Your task to perform on an android device: Open sound settings Image 0: 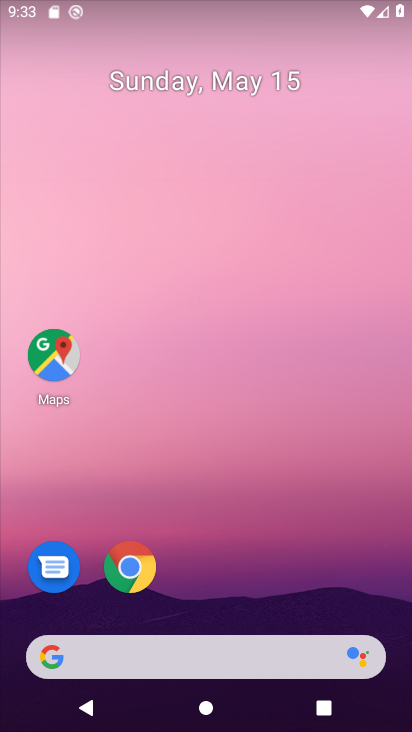
Step 0: drag from (234, 490) to (223, 38)
Your task to perform on an android device: Open sound settings Image 1: 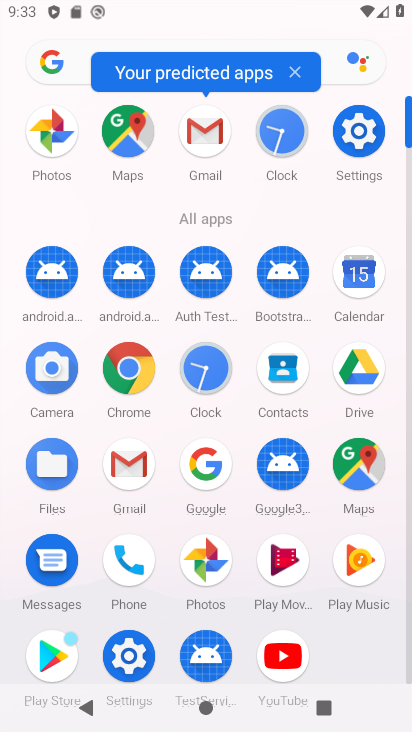
Step 1: click (365, 135)
Your task to perform on an android device: Open sound settings Image 2: 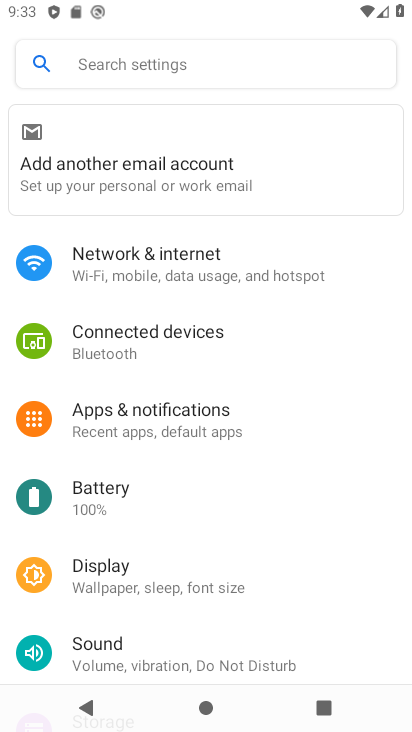
Step 2: click (127, 655)
Your task to perform on an android device: Open sound settings Image 3: 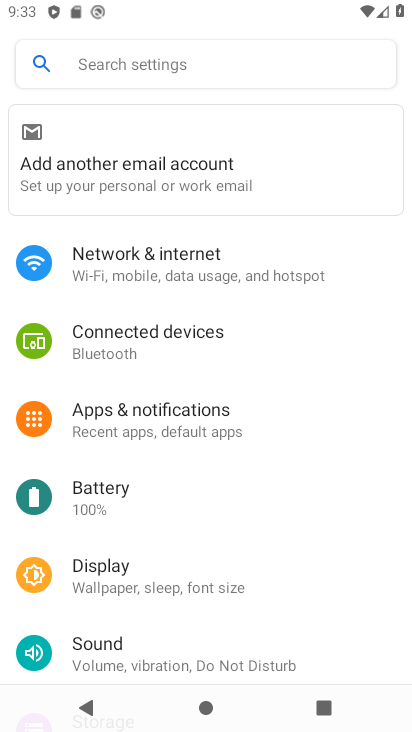
Step 3: click (199, 649)
Your task to perform on an android device: Open sound settings Image 4: 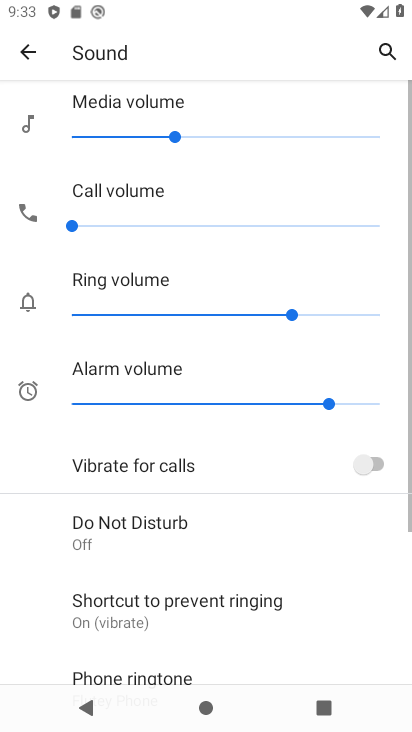
Step 4: task complete